Your task to perform on an android device: Is it going to rain this weekend? Image 0: 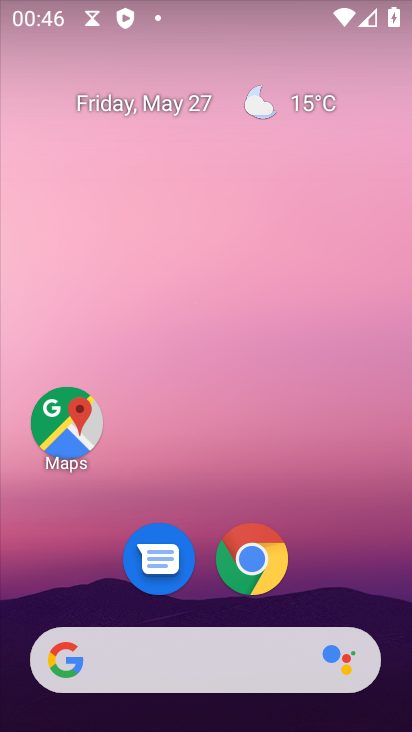
Step 0: click (311, 102)
Your task to perform on an android device: Is it going to rain this weekend? Image 1: 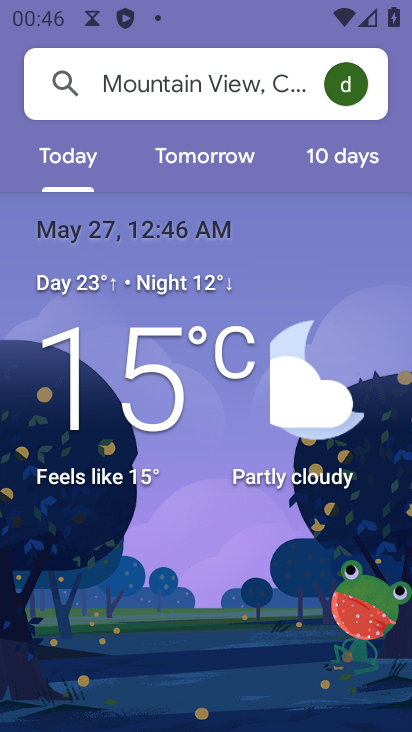
Step 1: task complete